Your task to perform on an android device: Show me the alarms in the clock app Image 0: 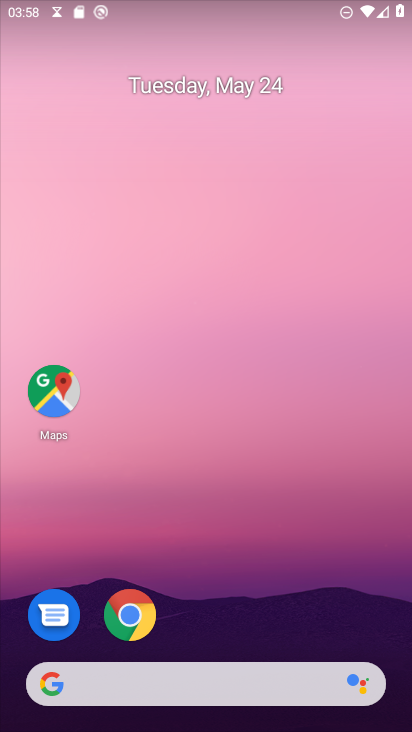
Step 0: drag from (257, 566) to (253, 16)
Your task to perform on an android device: Show me the alarms in the clock app Image 1: 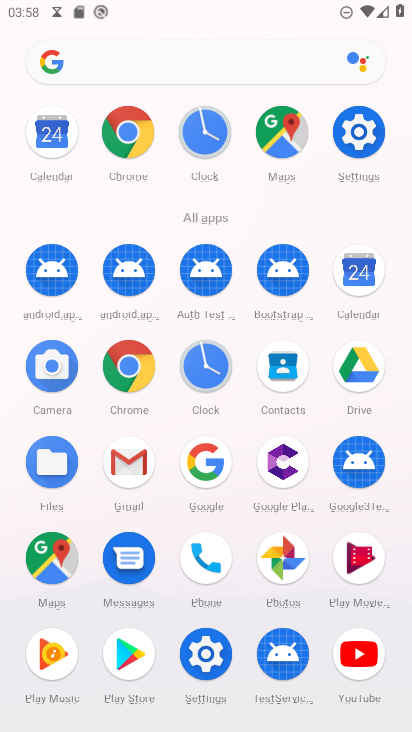
Step 1: drag from (3, 405) to (18, 138)
Your task to perform on an android device: Show me the alarms in the clock app Image 2: 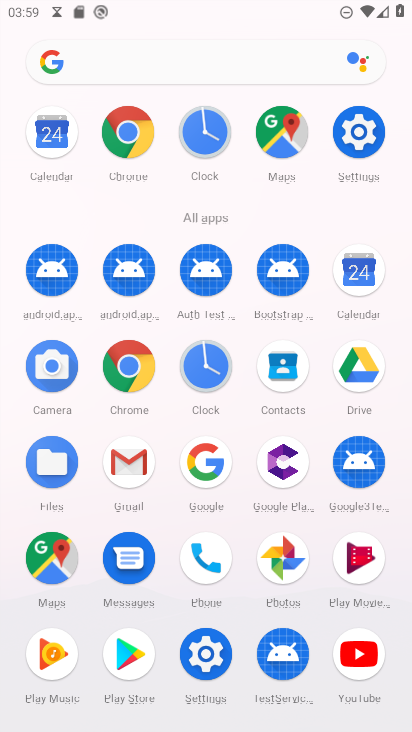
Step 2: click (199, 362)
Your task to perform on an android device: Show me the alarms in the clock app Image 3: 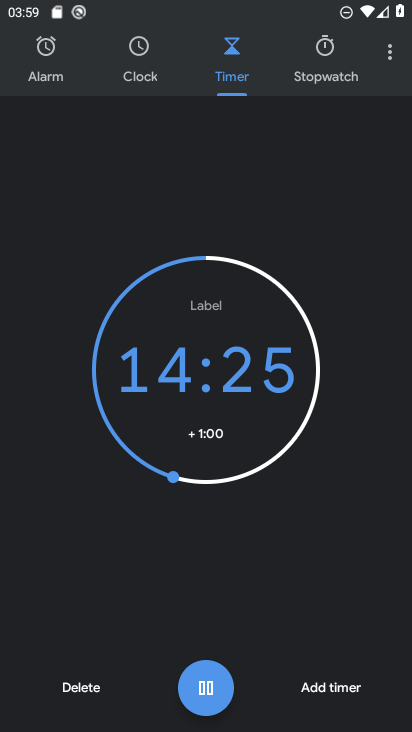
Step 3: click (58, 49)
Your task to perform on an android device: Show me the alarms in the clock app Image 4: 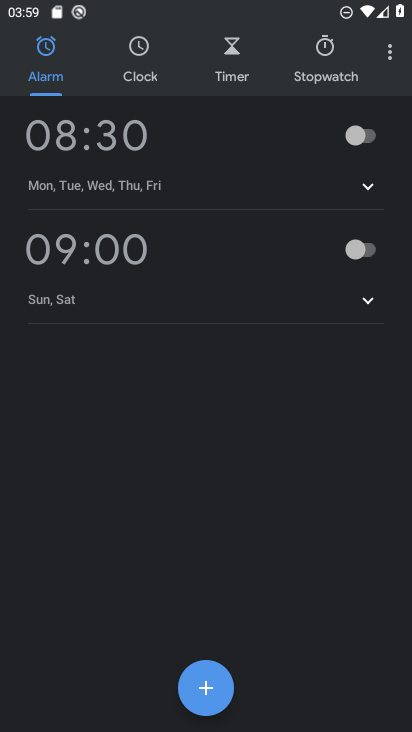
Step 4: task complete